Your task to perform on an android device: Go to Yahoo.com Image 0: 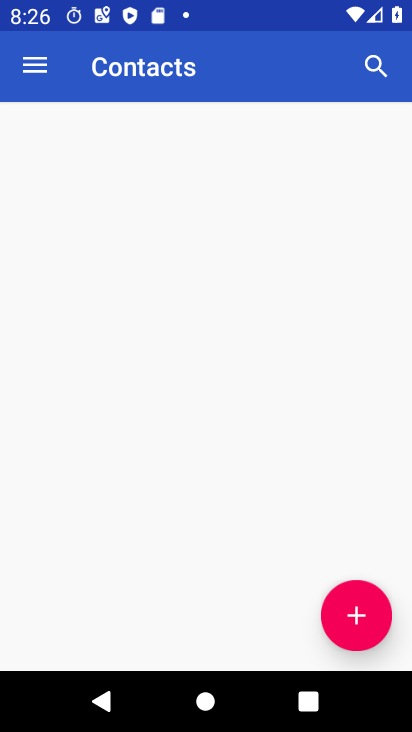
Step 0: press home button
Your task to perform on an android device: Go to Yahoo.com Image 1: 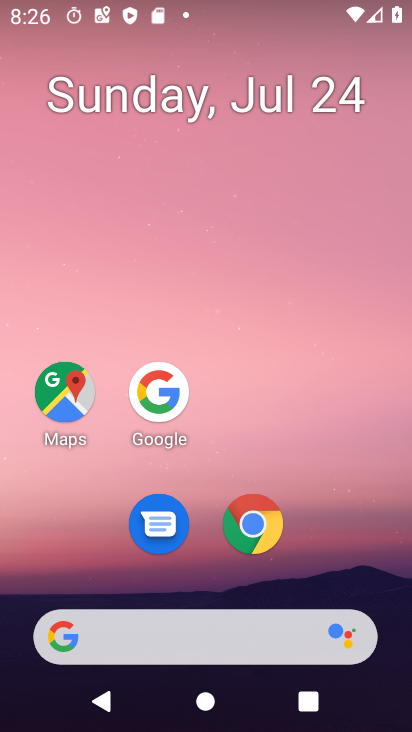
Step 1: click (262, 515)
Your task to perform on an android device: Go to Yahoo.com Image 2: 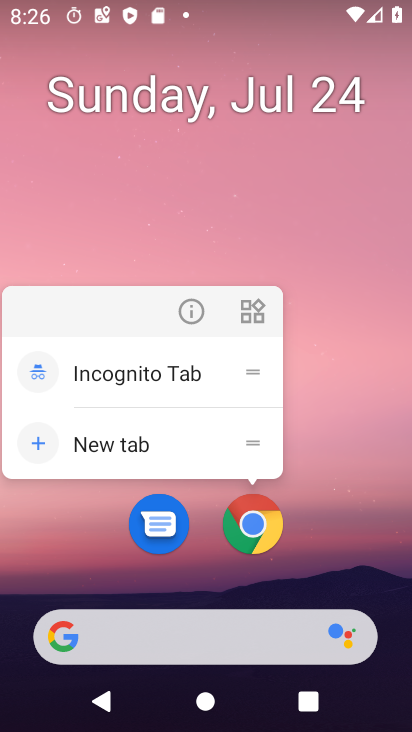
Step 2: click (258, 526)
Your task to perform on an android device: Go to Yahoo.com Image 3: 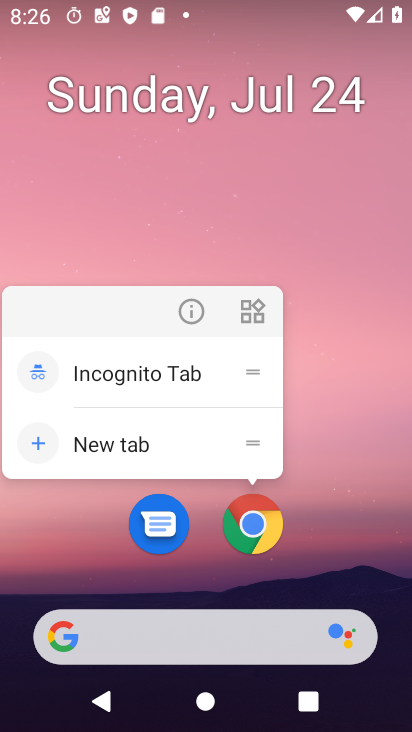
Step 3: click (258, 526)
Your task to perform on an android device: Go to Yahoo.com Image 4: 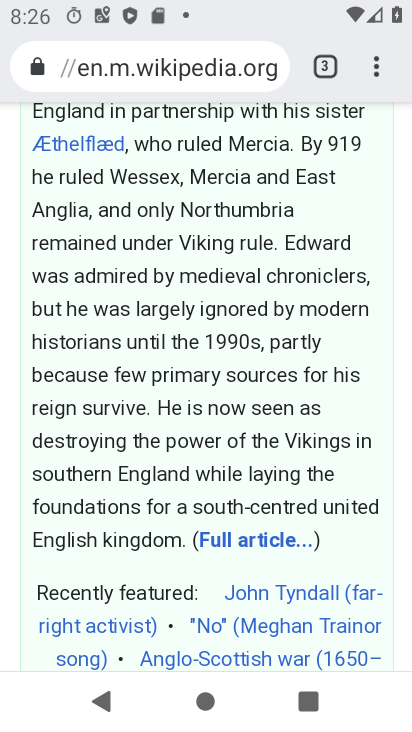
Step 4: drag from (376, 57) to (275, 133)
Your task to perform on an android device: Go to Yahoo.com Image 5: 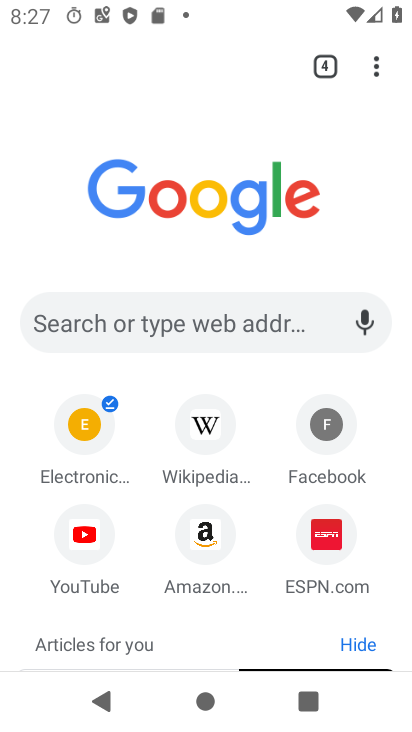
Step 5: click (114, 323)
Your task to perform on an android device: Go to Yahoo.com Image 6: 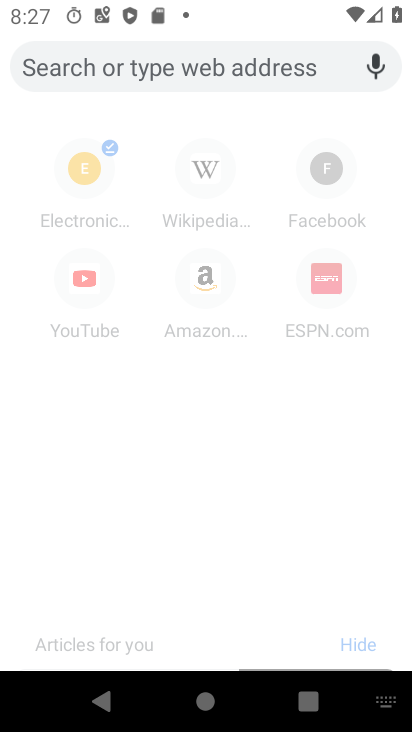
Step 6: type "yahoo.com"
Your task to perform on an android device: Go to Yahoo.com Image 7: 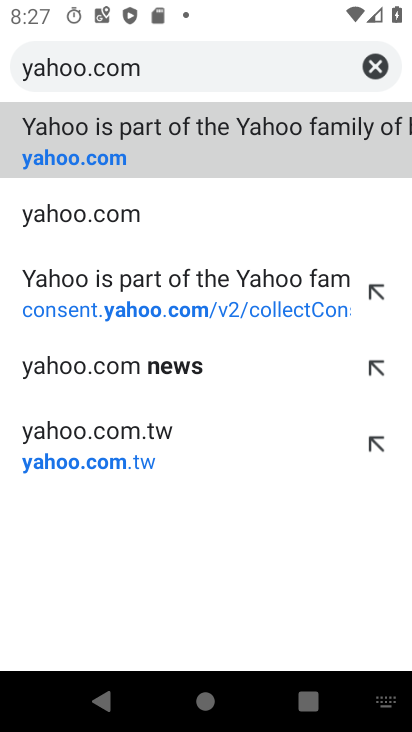
Step 7: click (176, 140)
Your task to perform on an android device: Go to Yahoo.com Image 8: 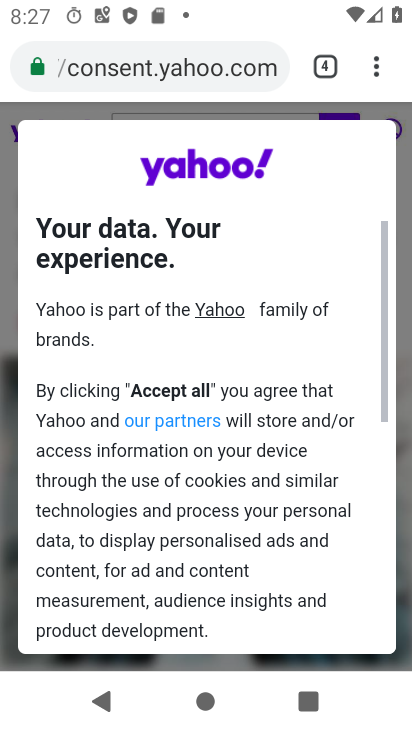
Step 8: drag from (232, 552) to (371, 106)
Your task to perform on an android device: Go to Yahoo.com Image 9: 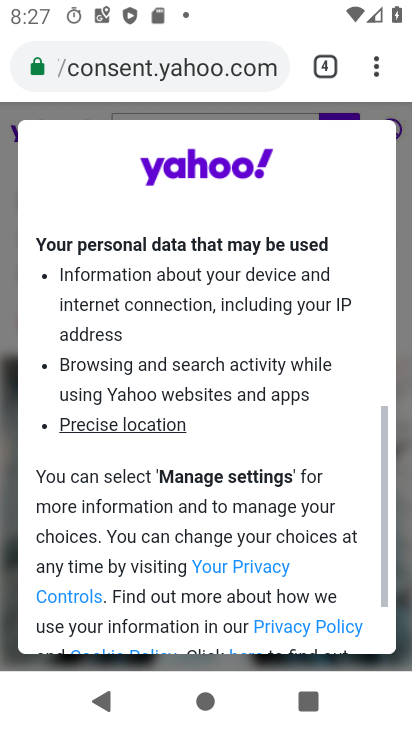
Step 9: drag from (140, 567) to (306, 128)
Your task to perform on an android device: Go to Yahoo.com Image 10: 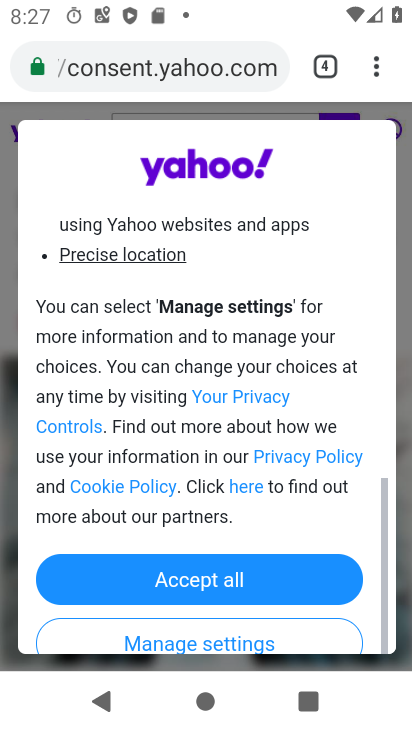
Step 10: click (170, 578)
Your task to perform on an android device: Go to Yahoo.com Image 11: 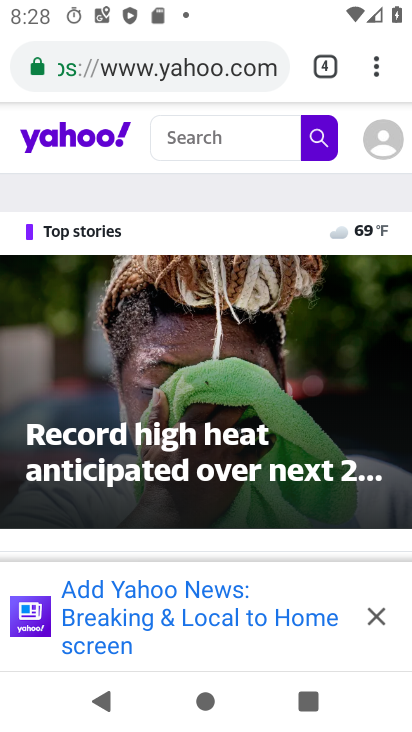
Step 11: task complete